Your task to perform on an android device: check battery use Image 0: 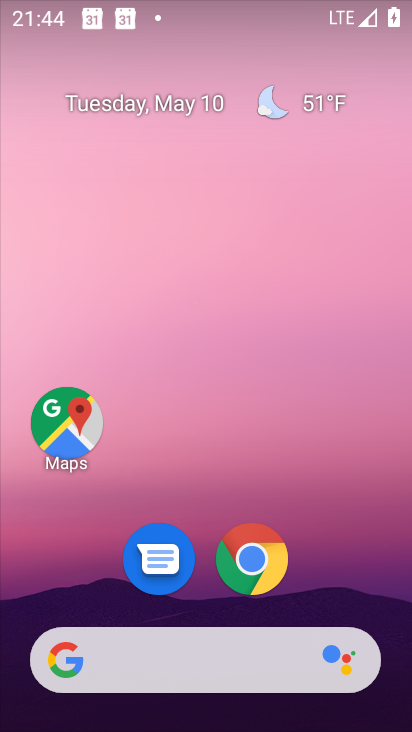
Step 0: drag from (328, 536) to (248, 92)
Your task to perform on an android device: check battery use Image 1: 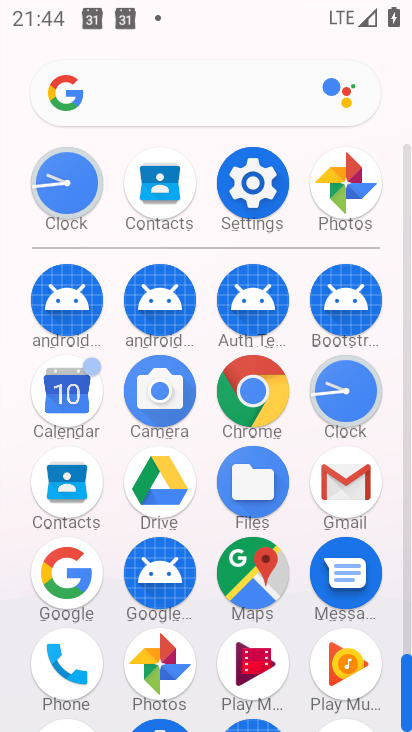
Step 1: click (251, 183)
Your task to perform on an android device: check battery use Image 2: 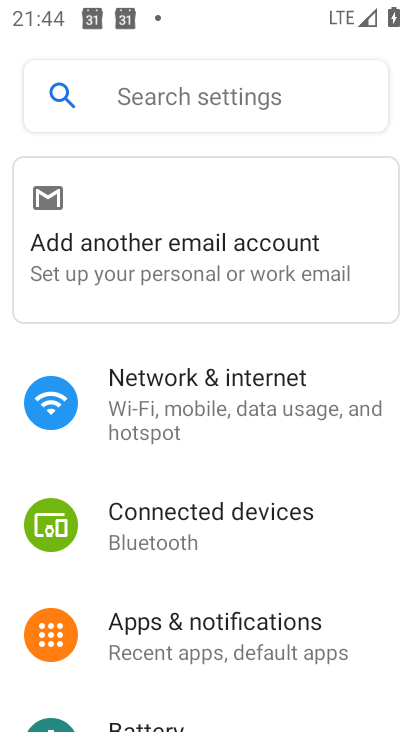
Step 2: drag from (213, 451) to (303, 202)
Your task to perform on an android device: check battery use Image 3: 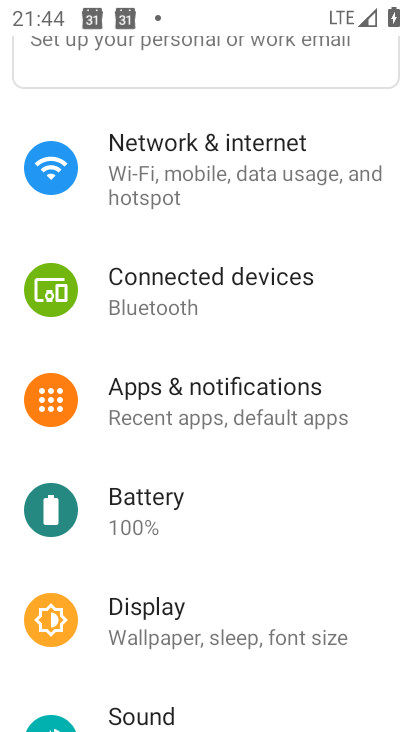
Step 3: click (129, 497)
Your task to perform on an android device: check battery use Image 4: 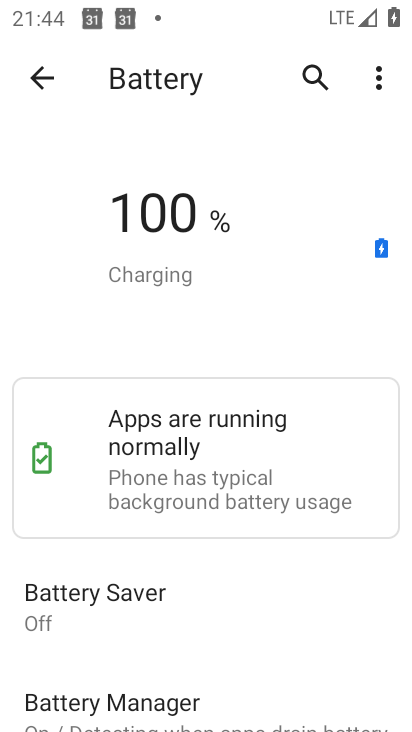
Step 4: task complete